Your task to perform on an android device: turn on airplane mode Image 0: 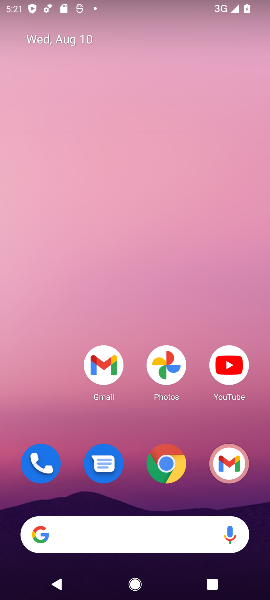
Step 0: drag from (140, 479) to (152, 252)
Your task to perform on an android device: turn on airplane mode Image 1: 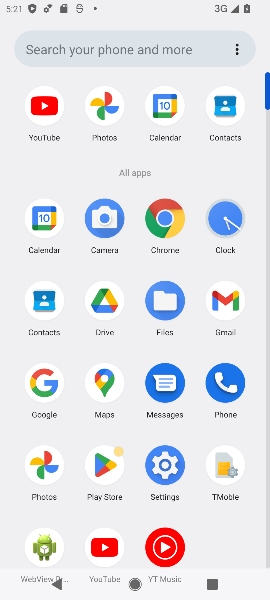
Step 1: click (165, 464)
Your task to perform on an android device: turn on airplane mode Image 2: 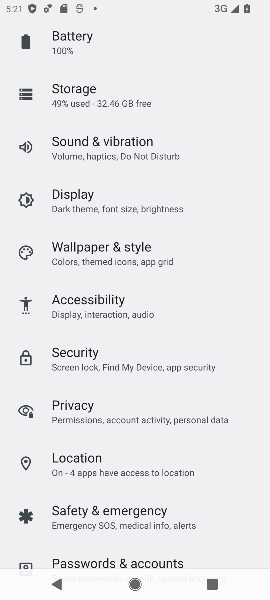
Step 2: drag from (125, 62) to (80, 286)
Your task to perform on an android device: turn on airplane mode Image 3: 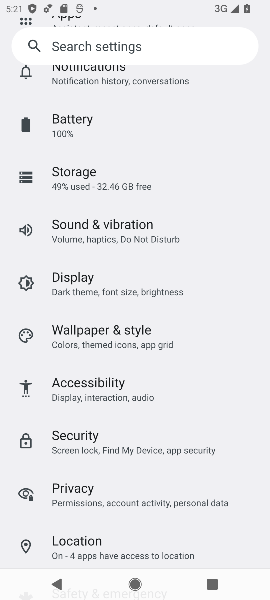
Step 3: drag from (97, 128) to (92, 359)
Your task to perform on an android device: turn on airplane mode Image 4: 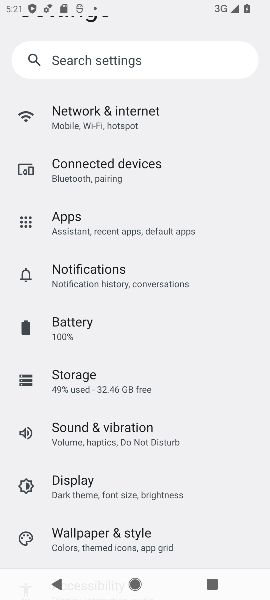
Step 4: click (101, 105)
Your task to perform on an android device: turn on airplane mode Image 5: 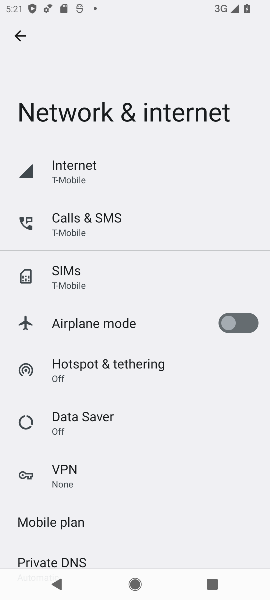
Step 5: click (237, 326)
Your task to perform on an android device: turn on airplane mode Image 6: 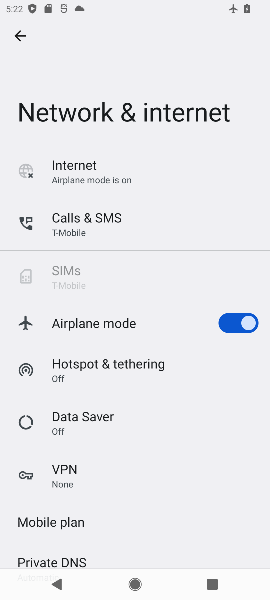
Step 6: task complete